Your task to perform on an android device: change notifications settings Image 0: 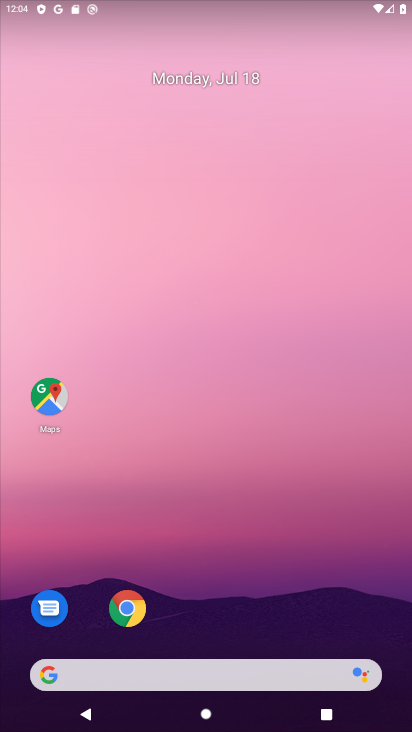
Step 0: drag from (278, 573) to (322, 93)
Your task to perform on an android device: change notifications settings Image 1: 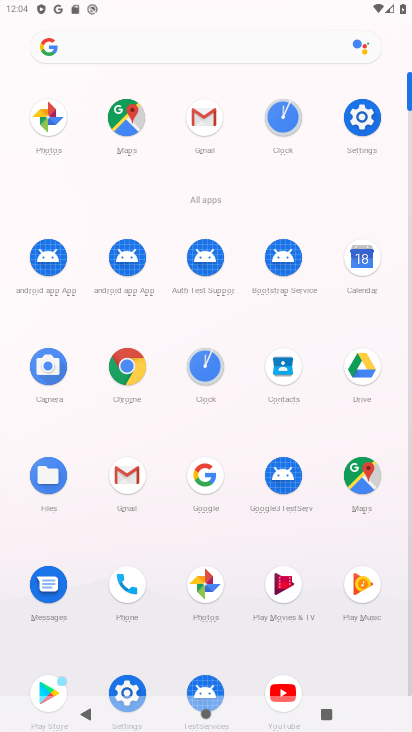
Step 1: click (377, 127)
Your task to perform on an android device: change notifications settings Image 2: 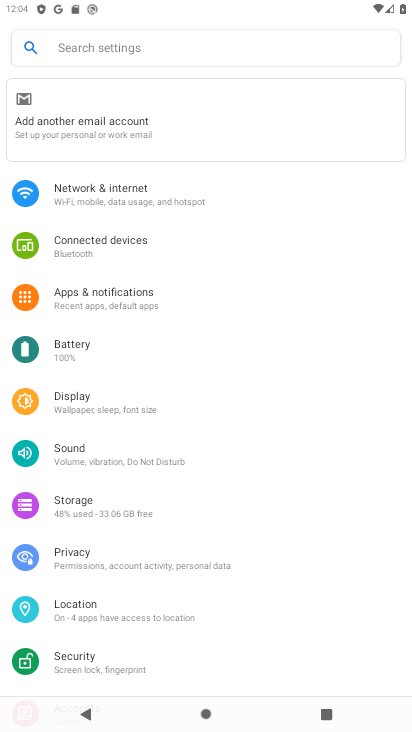
Step 2: click (138, 297)
Your task to perform on an android device: change notifications settings Image 3: 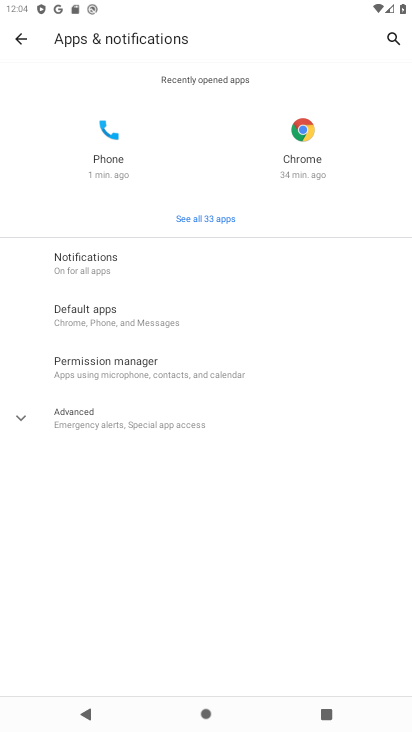
Step 3: click (101, 271)
Your task to perform on an android device: change notifications settings Image 4: 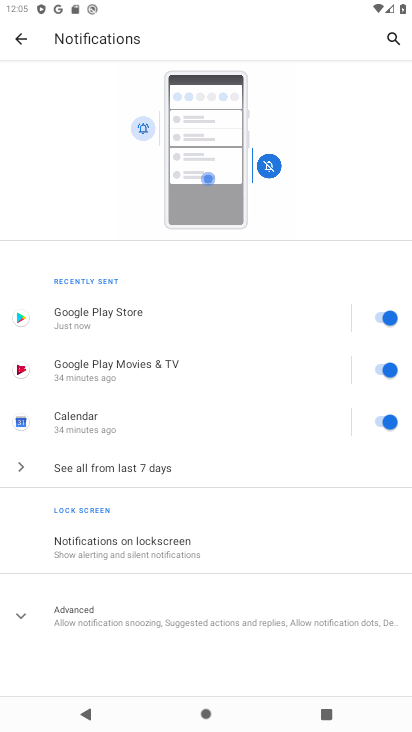
Step 4: click (99, 470)
Your task to perform on an android device: change notifications settings Image 5: 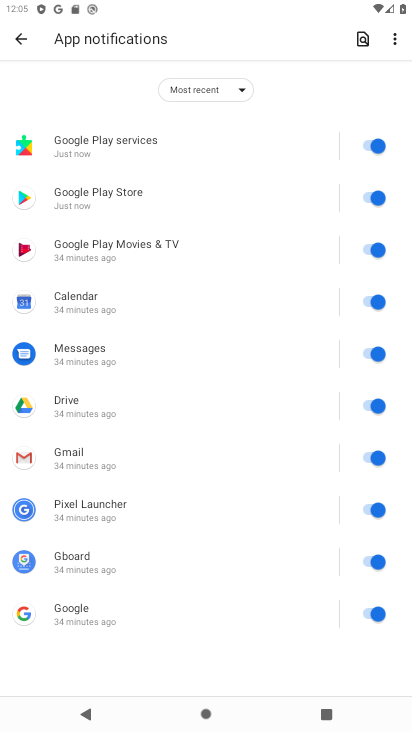
Step 5: drag from (189, 586) to (284, 130)
Your task to perform on an android device: change notifications settings Image 6: 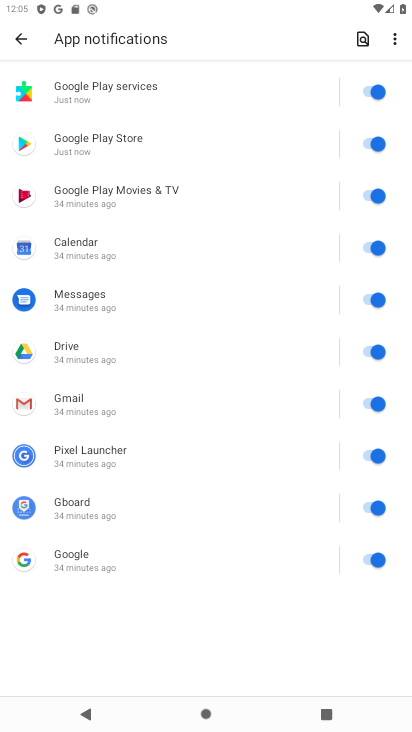
Step 6: drag from (308, 321) to (288, 606)
Your task to perform on an android device: change notifications settings Image 7: 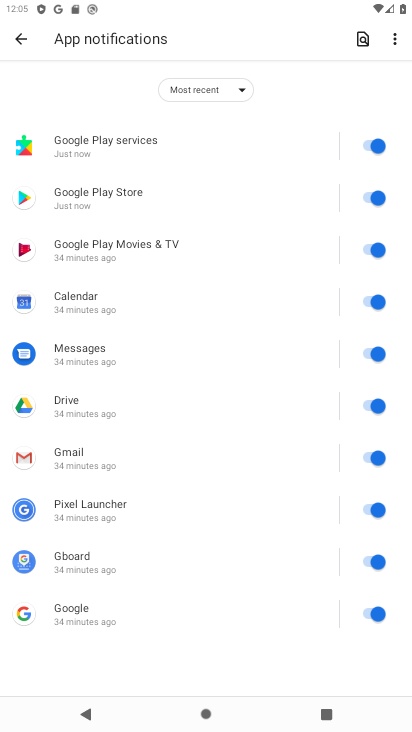
Step 7: click (372, 146)
Your task to perform on an android device: change notifications settings Image 8: 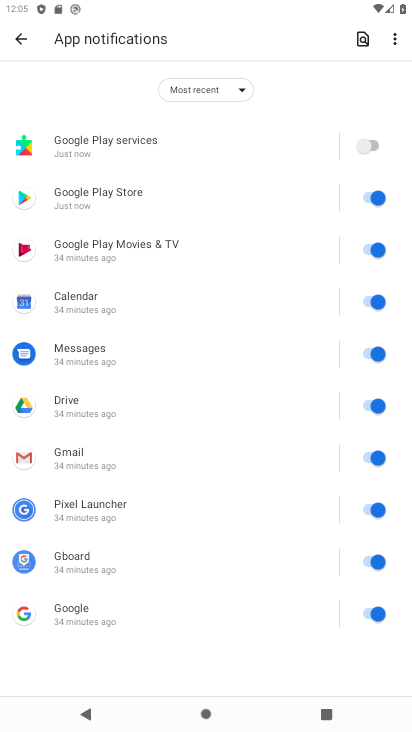
Step 8: task complete